Your task to perform on an android device: How do I get to the nearest AT&T Store? Image 0: 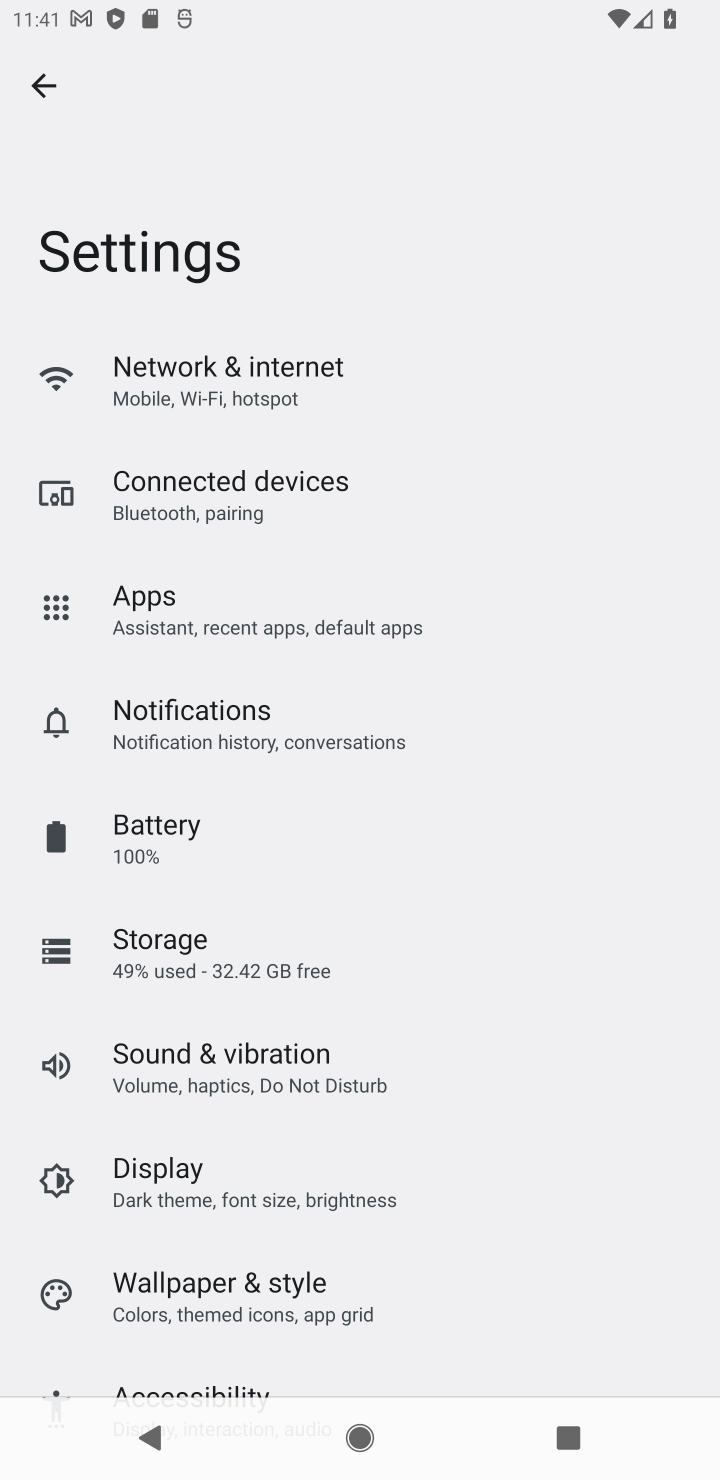
Step 0: press home button
Your task to perform on an android device: How do I get to the nearest AT&T Store? Image 1: 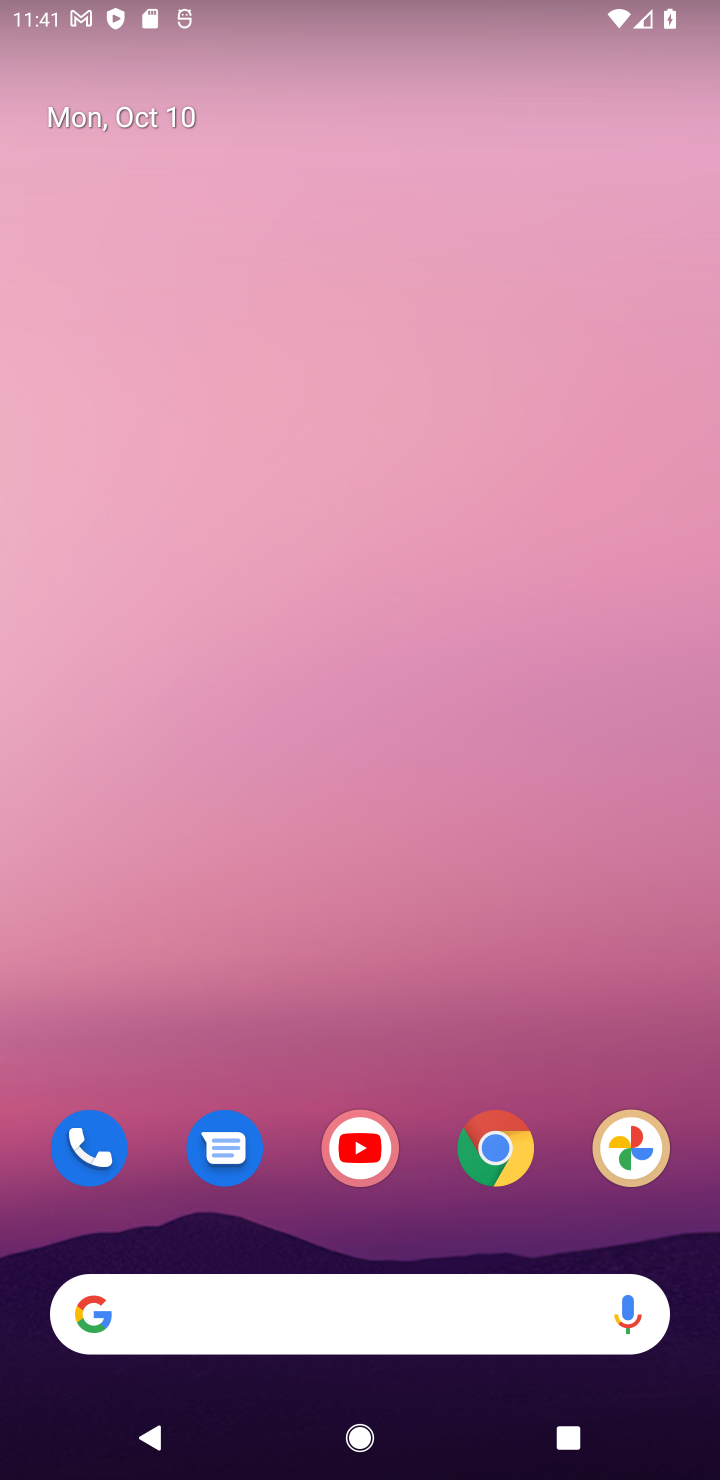
Step 1: drag from (328, 972) to (326, 488)
Your task to perform on an android device: How do I get to the nearest AT&T Store? Image 2: 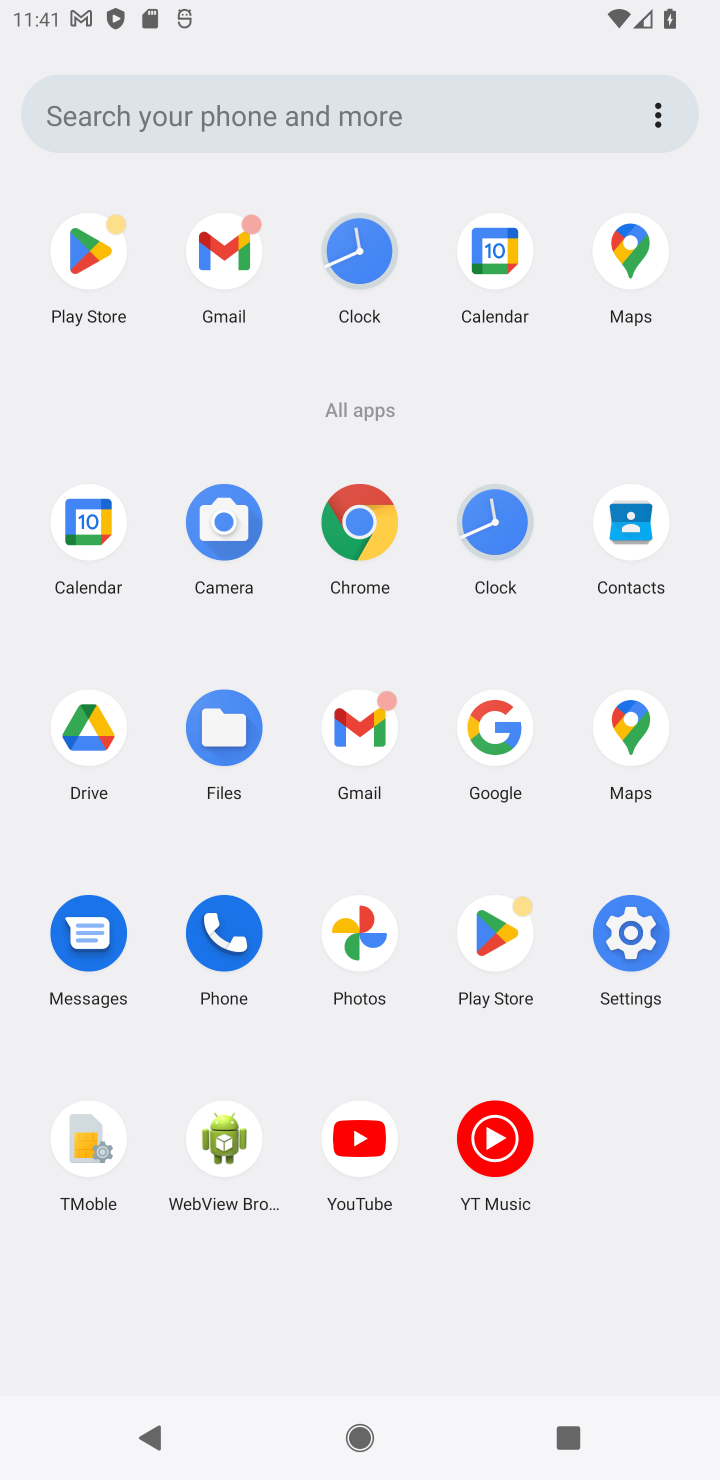
Step 2: click (497, 717)
Your task to perform on an android device: How do I get to the nearest AT&T Store? Image 3: 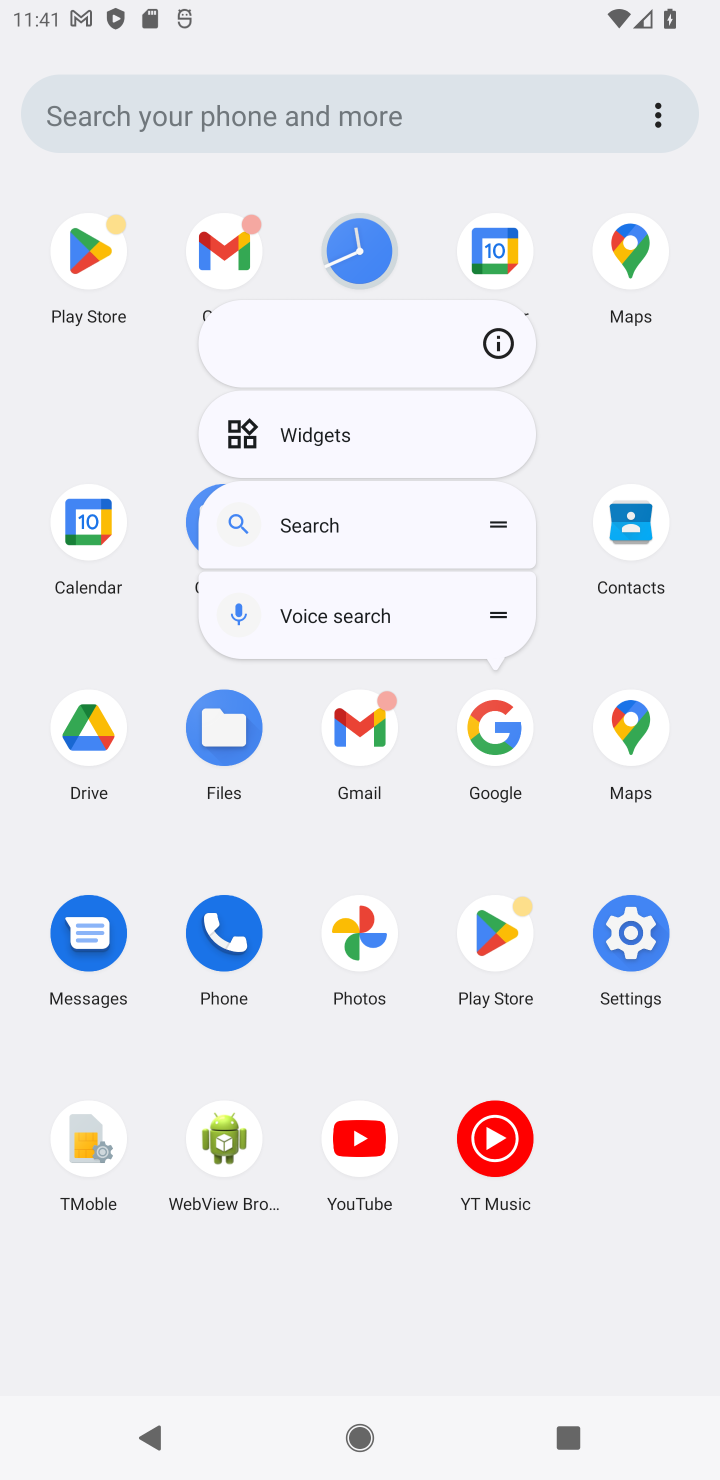
Step 3: click (492, 732)
Your task to perform on an android device: How do I get to the nearest AT&T Store? Image 4: 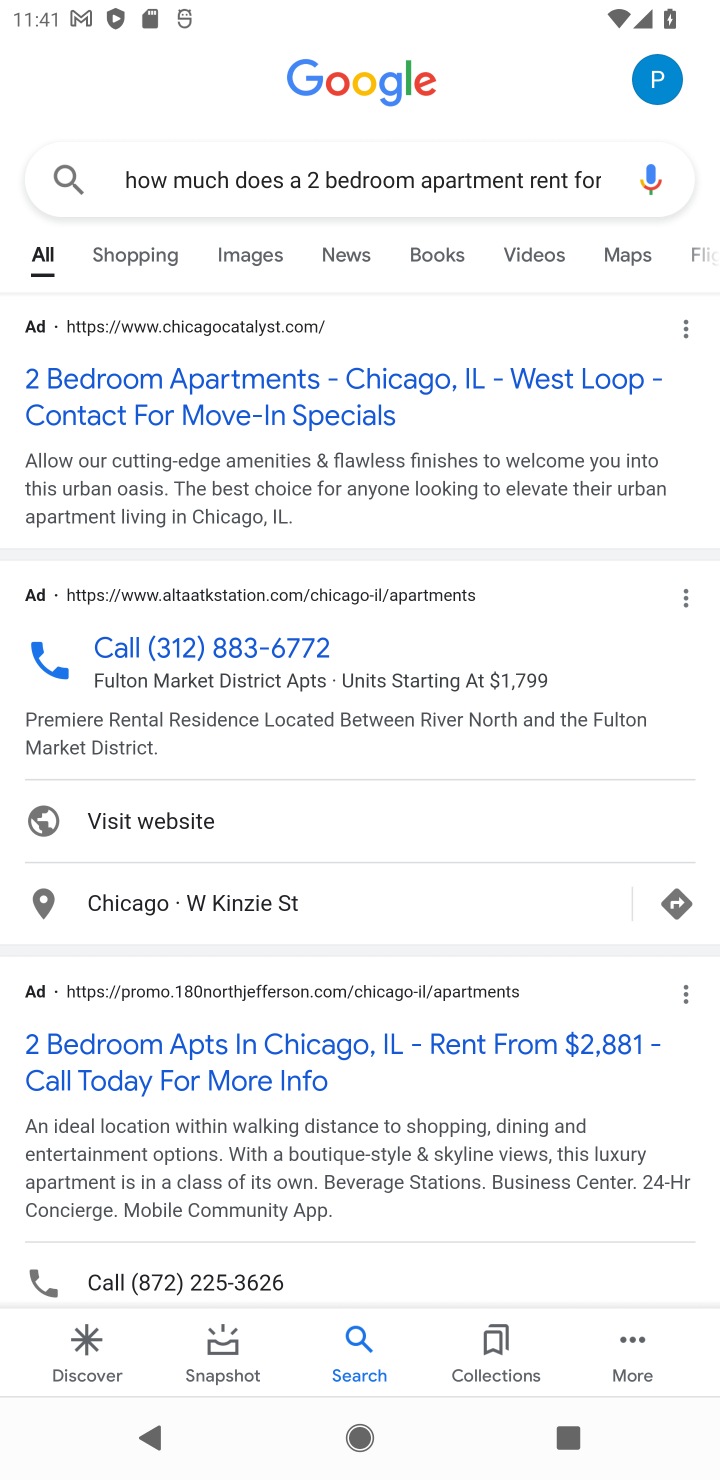
Step 4: click (250, 184)
Your task to perform on an android device: How do I get to the nearest AT&T Store? Image 5: 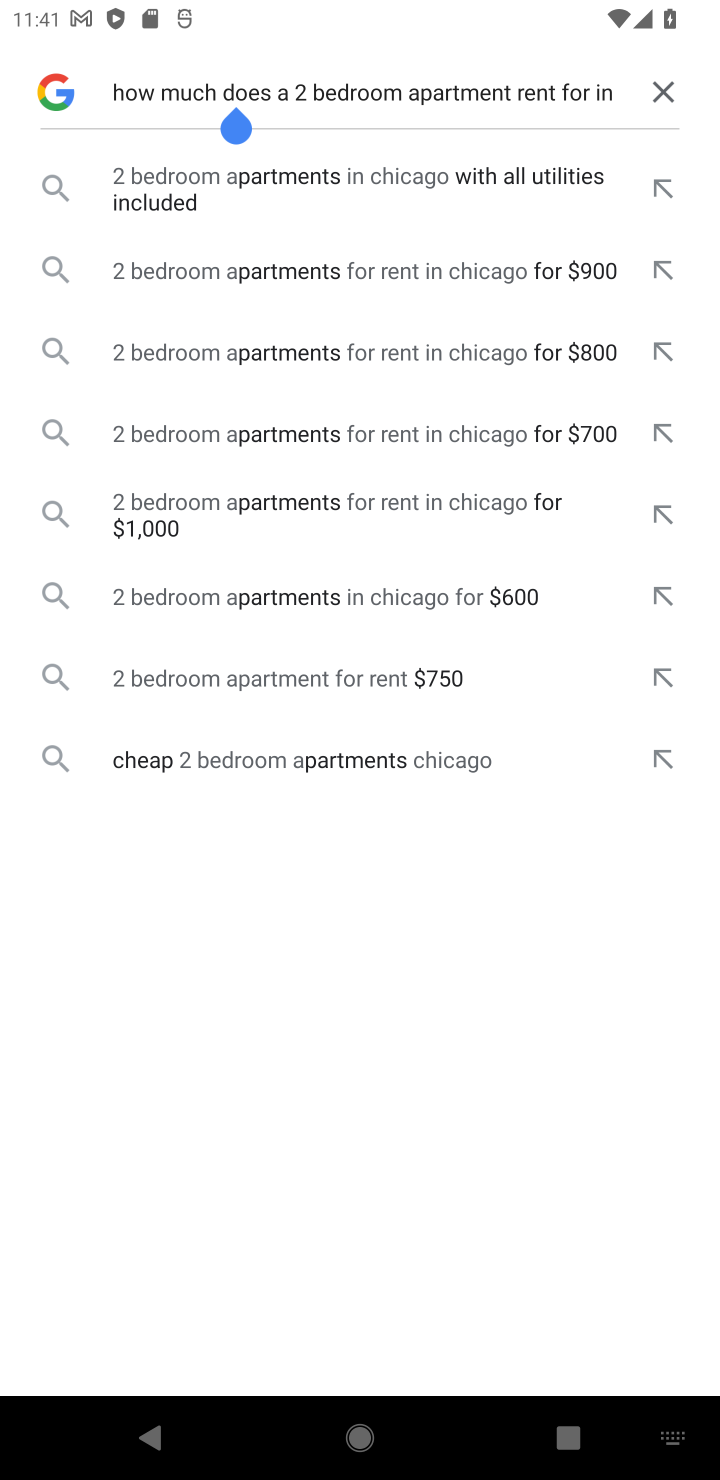
Step 5: click (632, 95)
Your task to perform on an android device: How do I get to the nearest AT&T Store? Image 6: 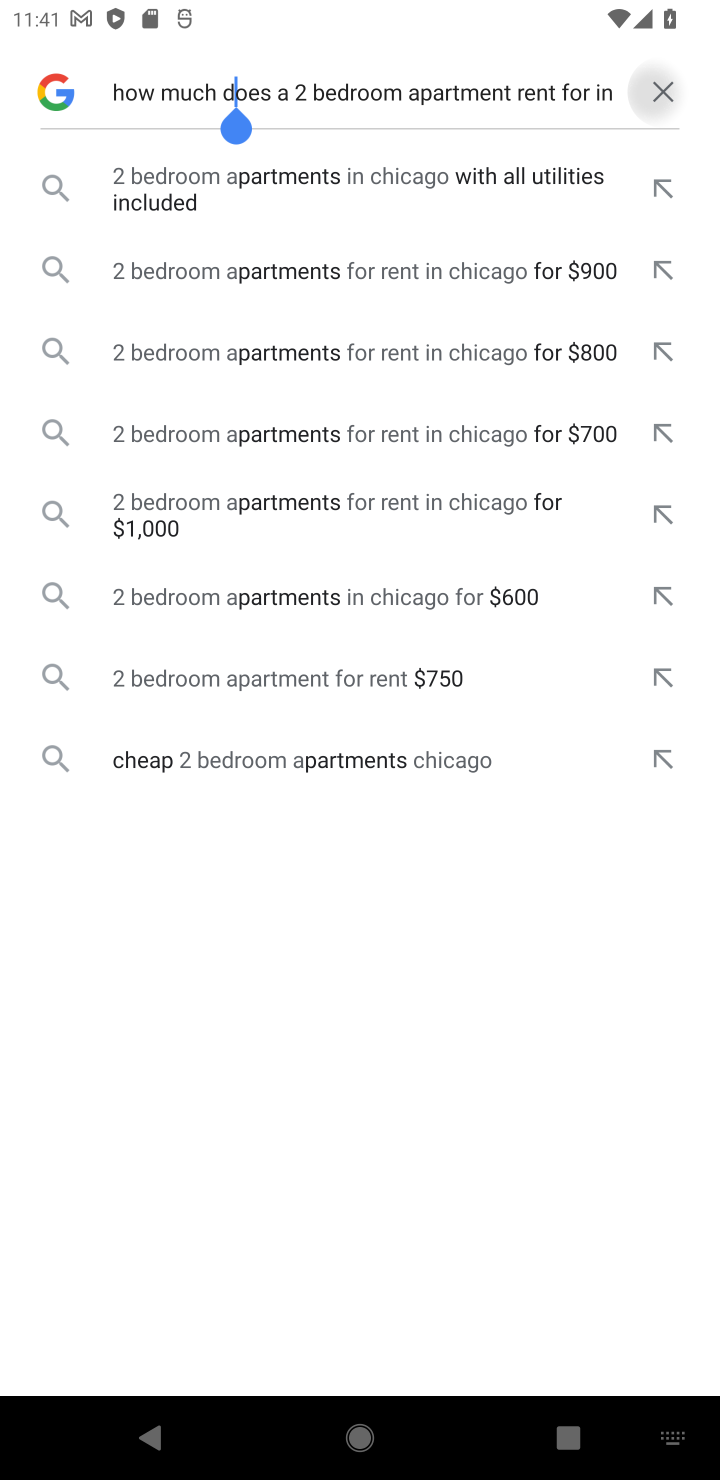
Step 6: click (665, 95)
Your task to perform on an android device: How do I get to the nearest AT&T Store? Image 7: 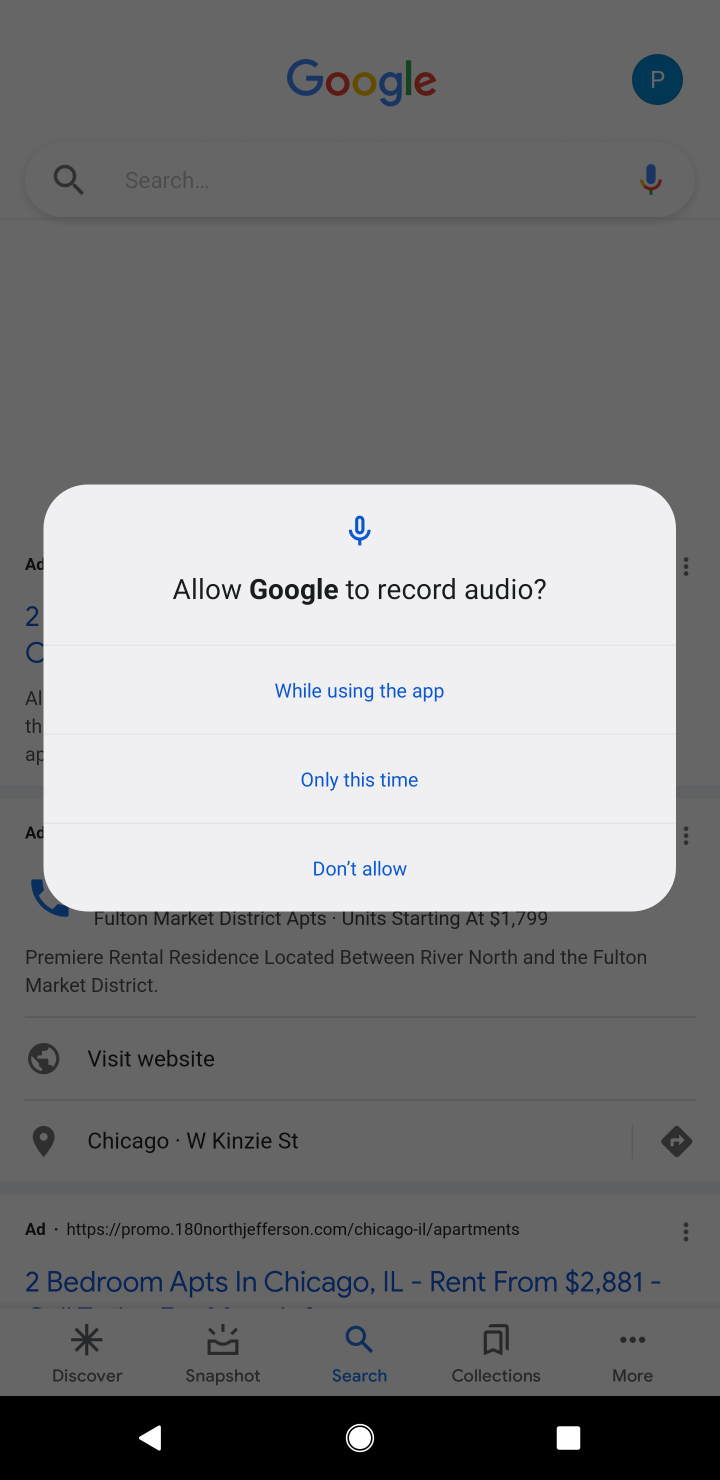
Step 7: click (648, 377)
Your task to perform on an android device: How do I get to the nearest AT&T Store? Image 8: 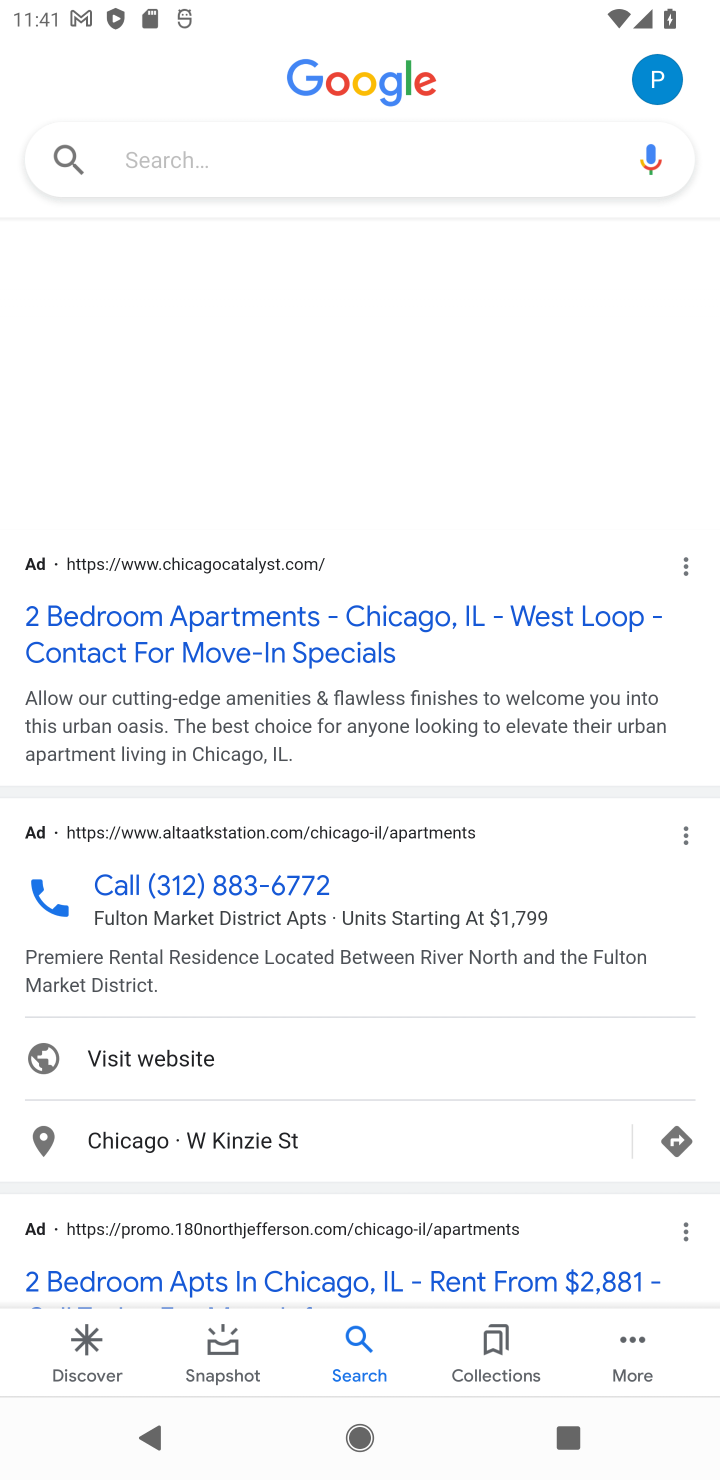
Step 8: click (276, 158)
Your task to perform on an android device: How do I get to the nearest AT&T Store? Image 9: 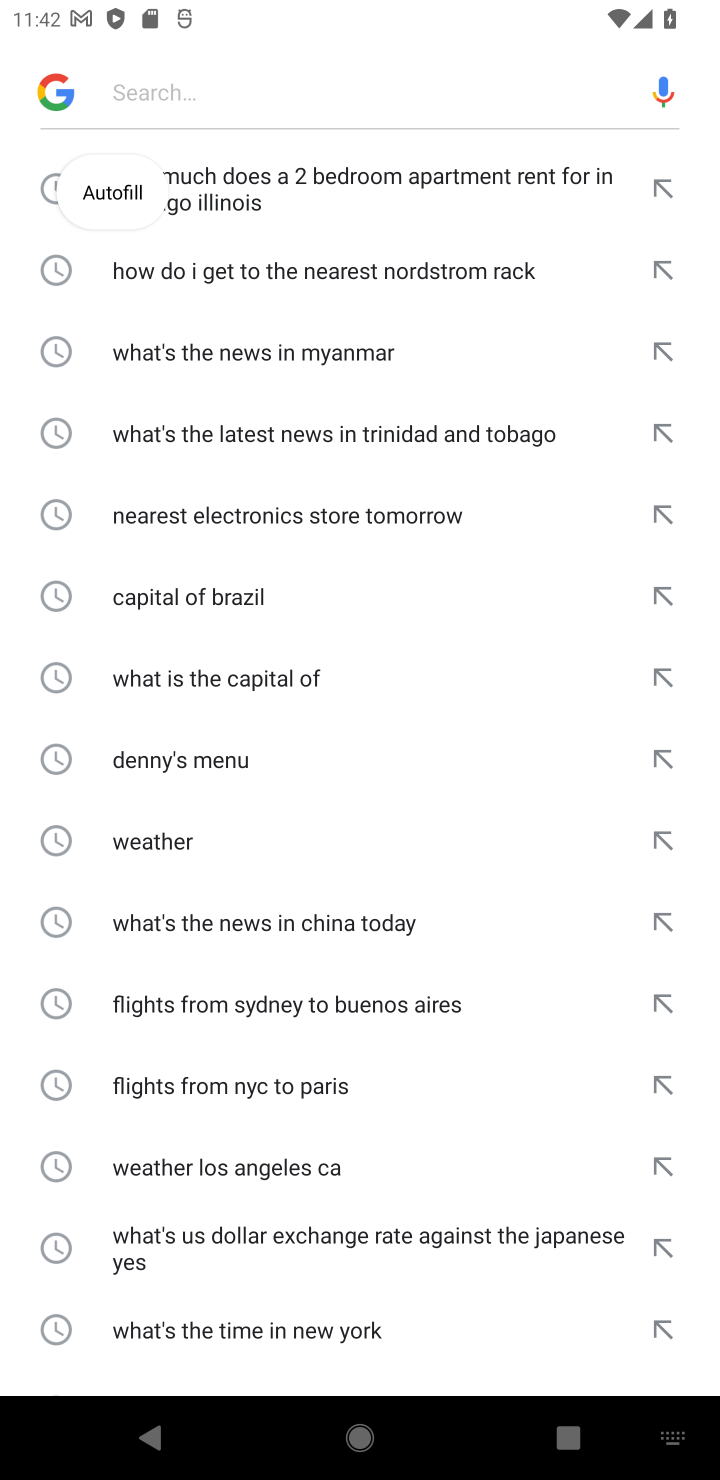
Step 9: type "How do I get to the nearest AT&T Store?"
Your task to perform on an android device: How do I get to the nearest AT&T Store? Image 10: 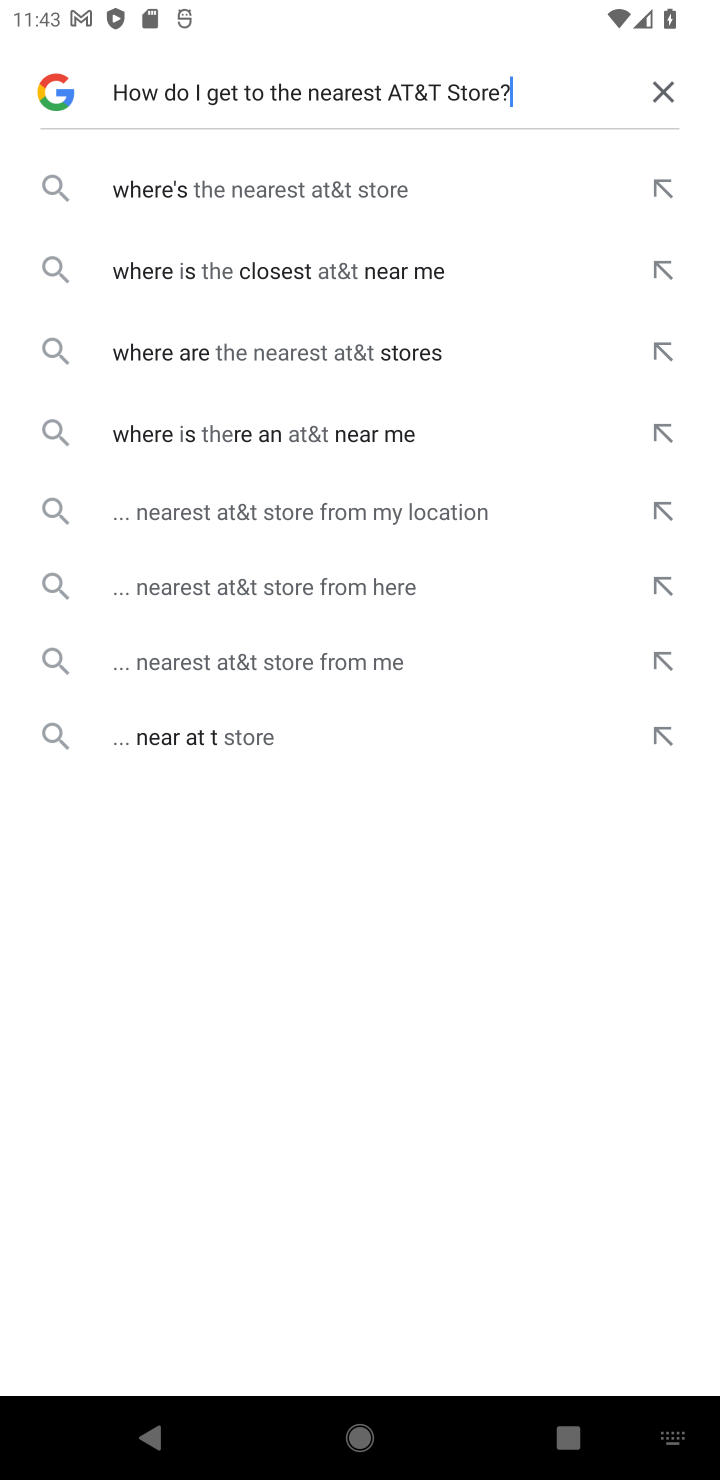
Step 10: click (138, 199)
Your task to perform on an android device: How do I get to the nearest AT&T Store? Image 11: 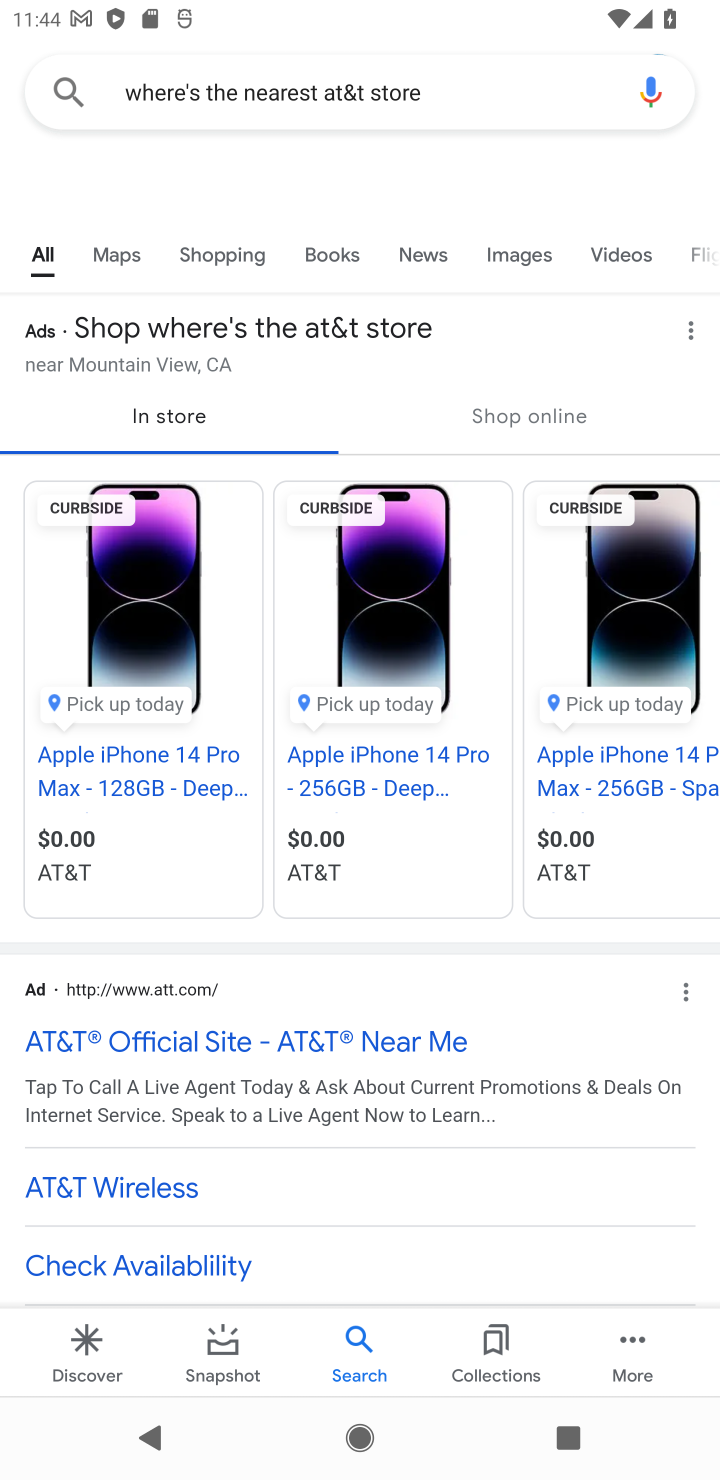
Step 11: task complete